Your task to perform on an android device: Open CNN.com Image 0: 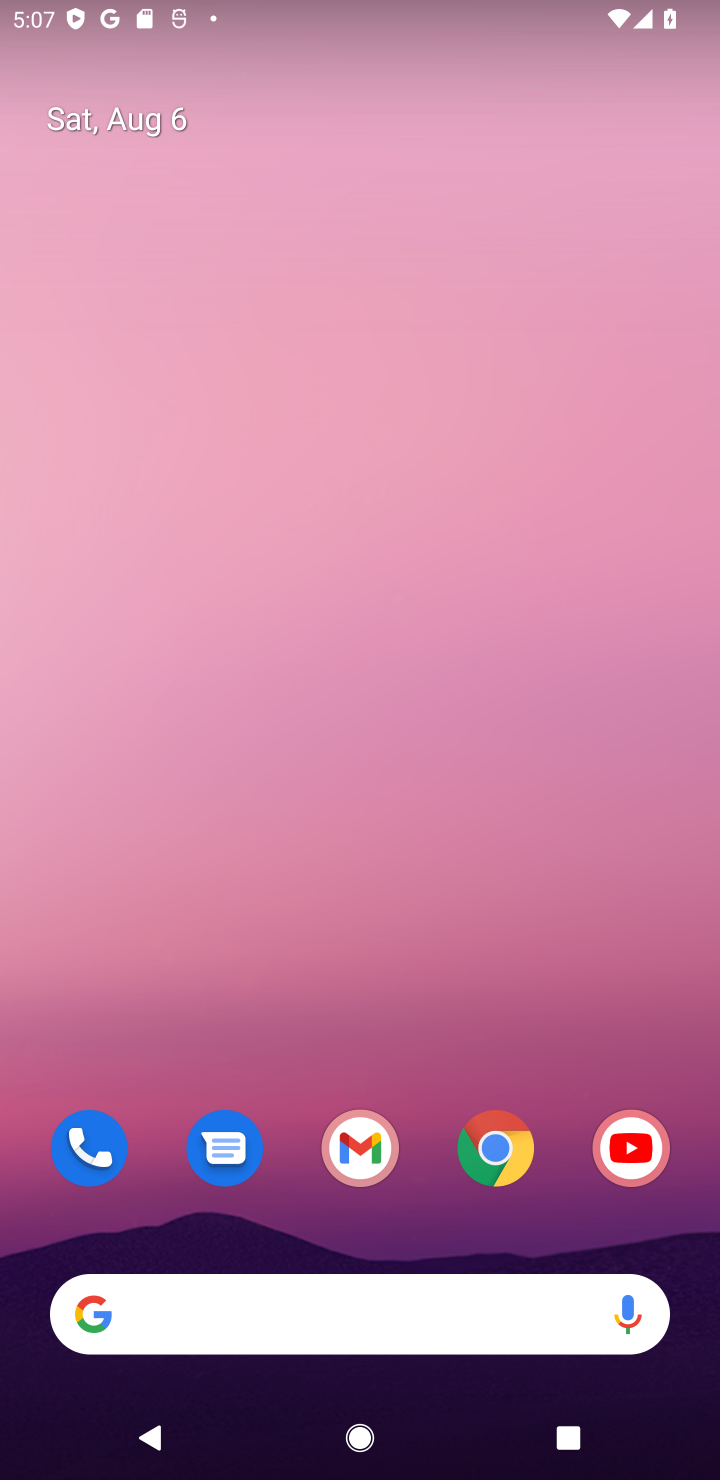
Step 0: click (518, 1145)
Your task to perform on an android device: Open CNN.com Image 1: 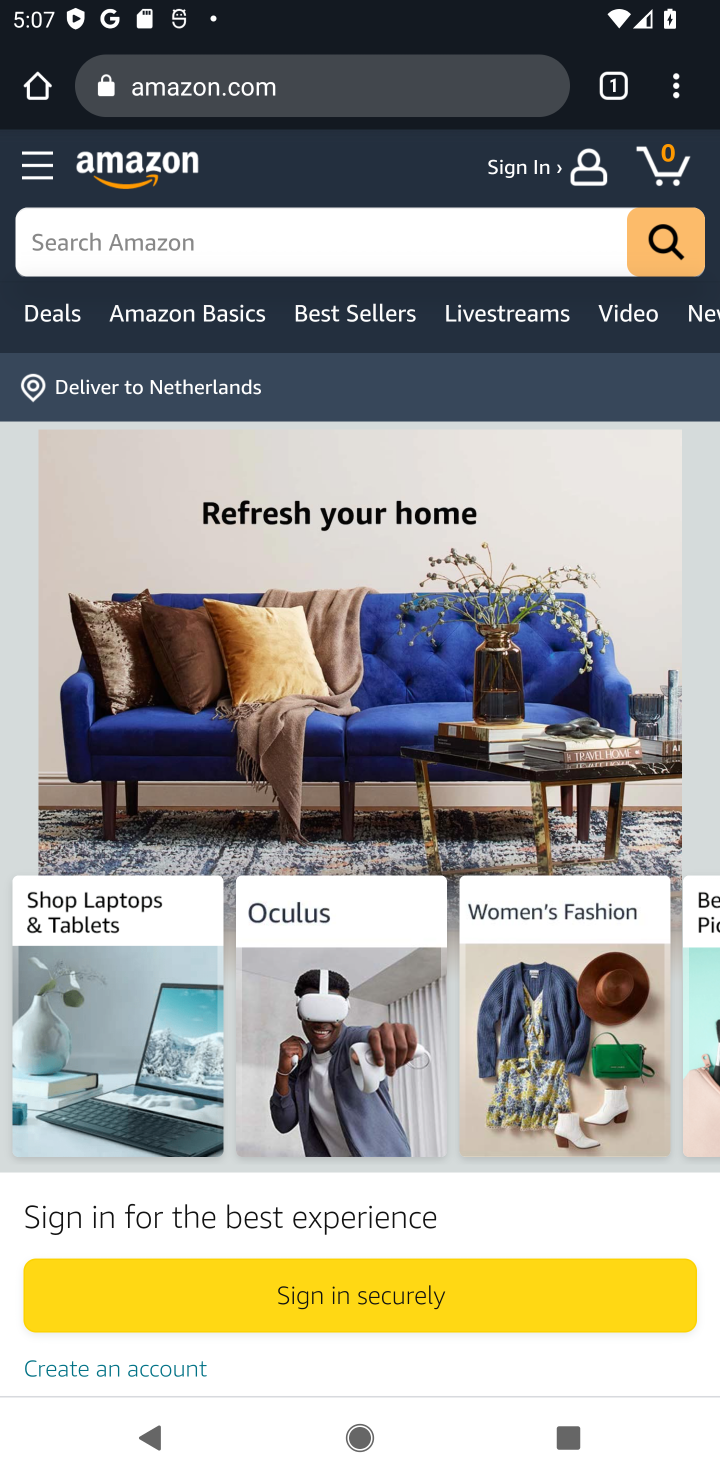
Step 1: click (611, 71)
Your task to perform on an android device: Open CNN.com Image 2: 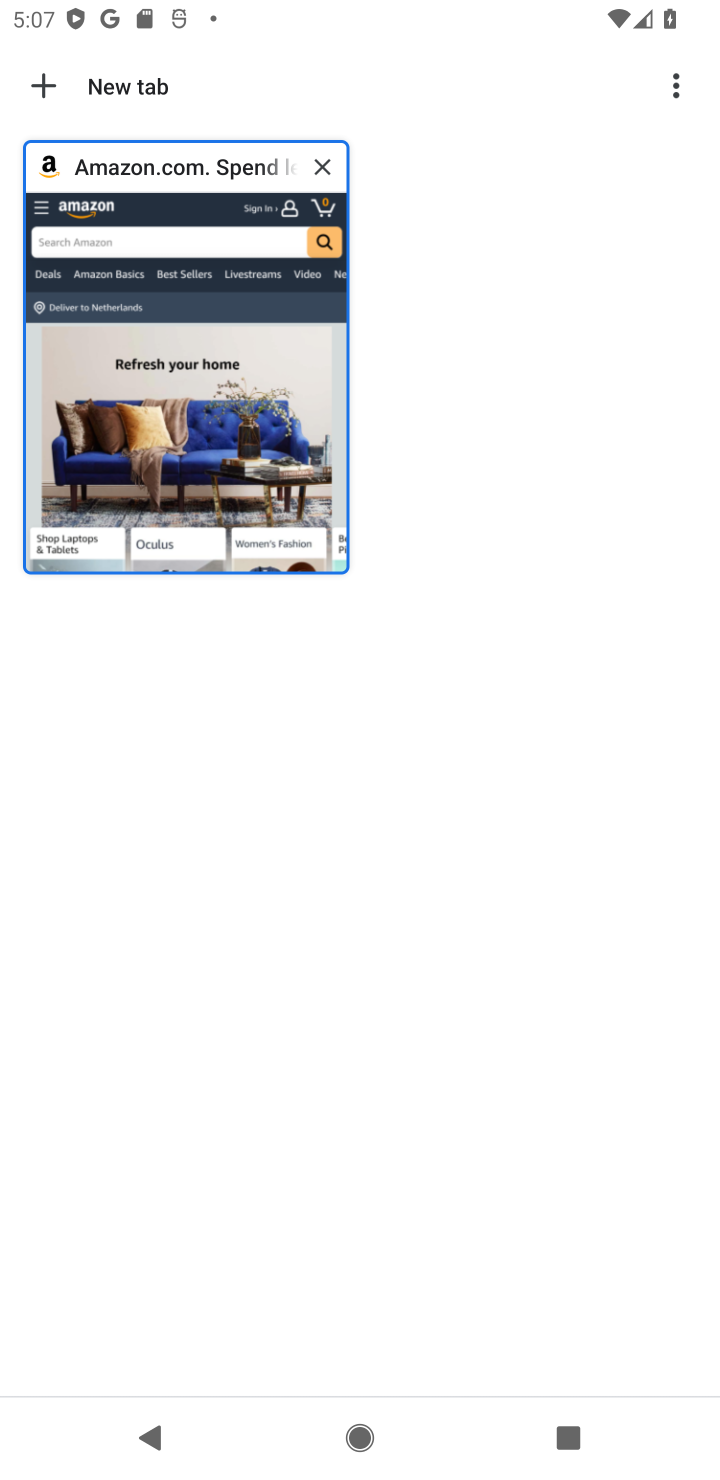
Step 2: click (40, 72)
Your task to perform on an android device: Open CNN.com Image 3: 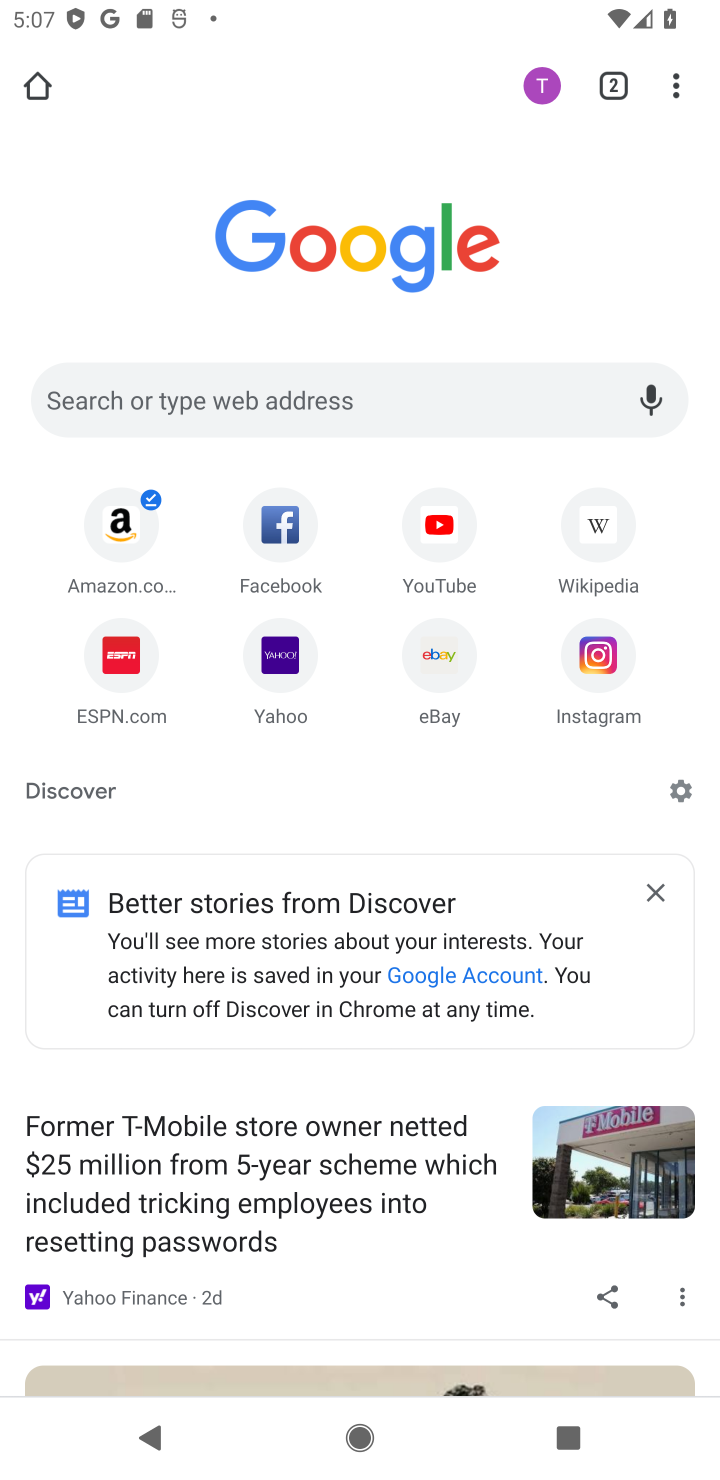
Step 3: click (203, 370)
Your task to perform on an android device: Open CNN.com Image 4: 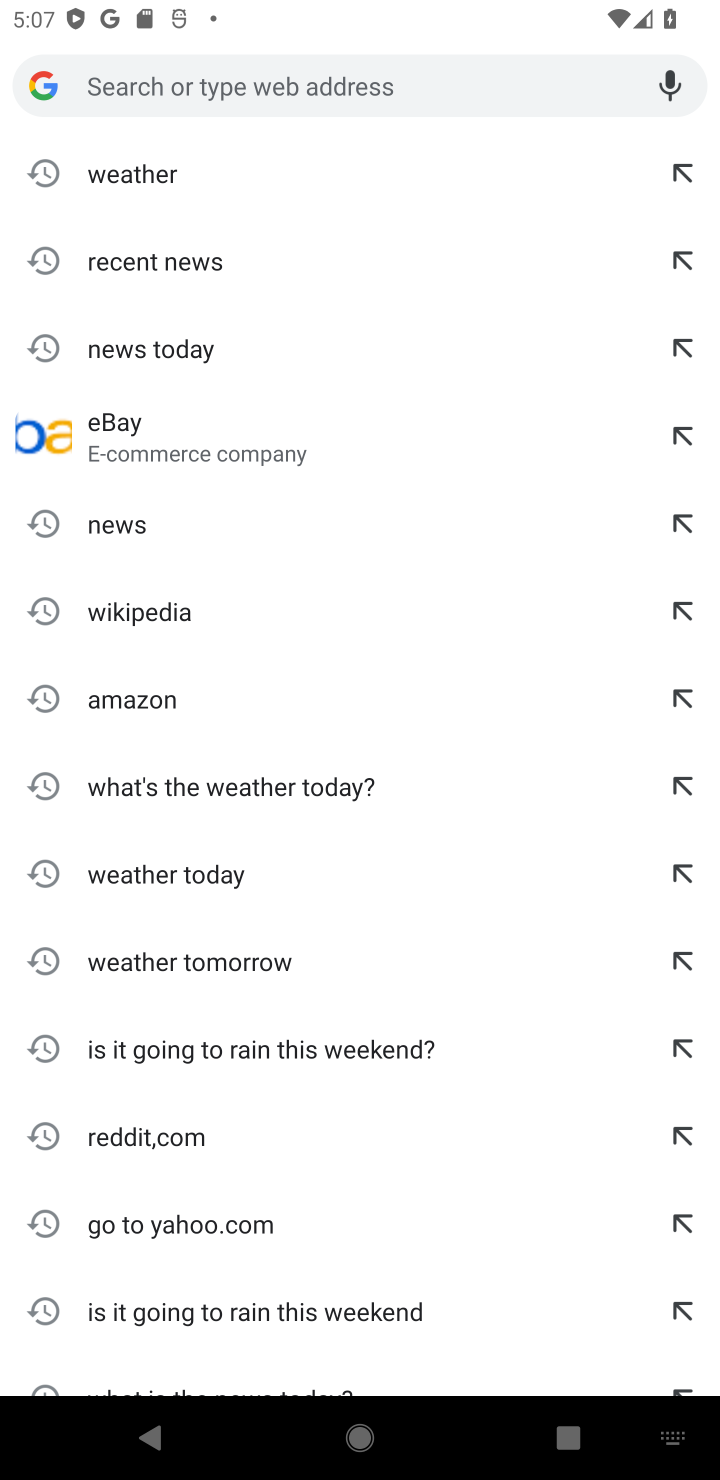
Step 4: type "CNN.com"
Your task to perform on an android device: Open CNN.com Image 5: 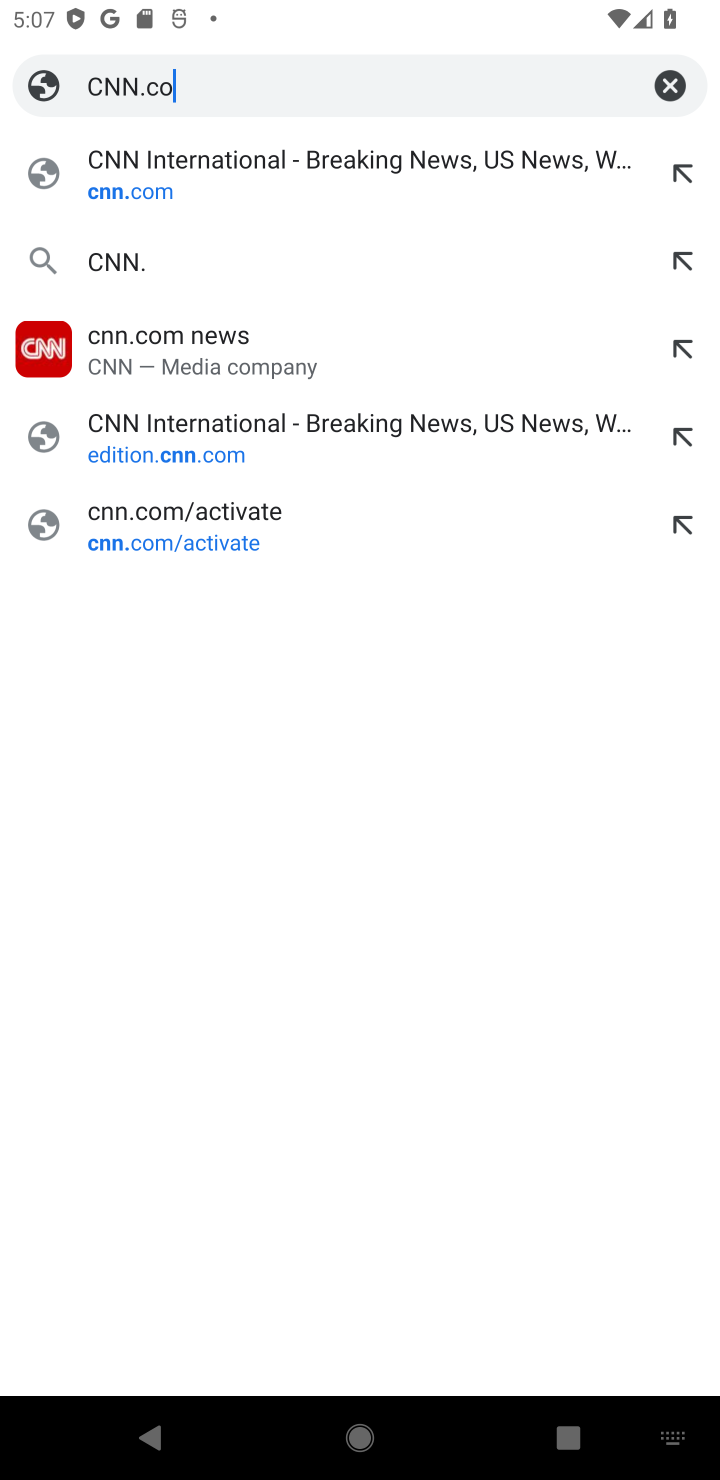
Step 5: type ""
Your task to perform on an android device: Open CNN.com Image 6: 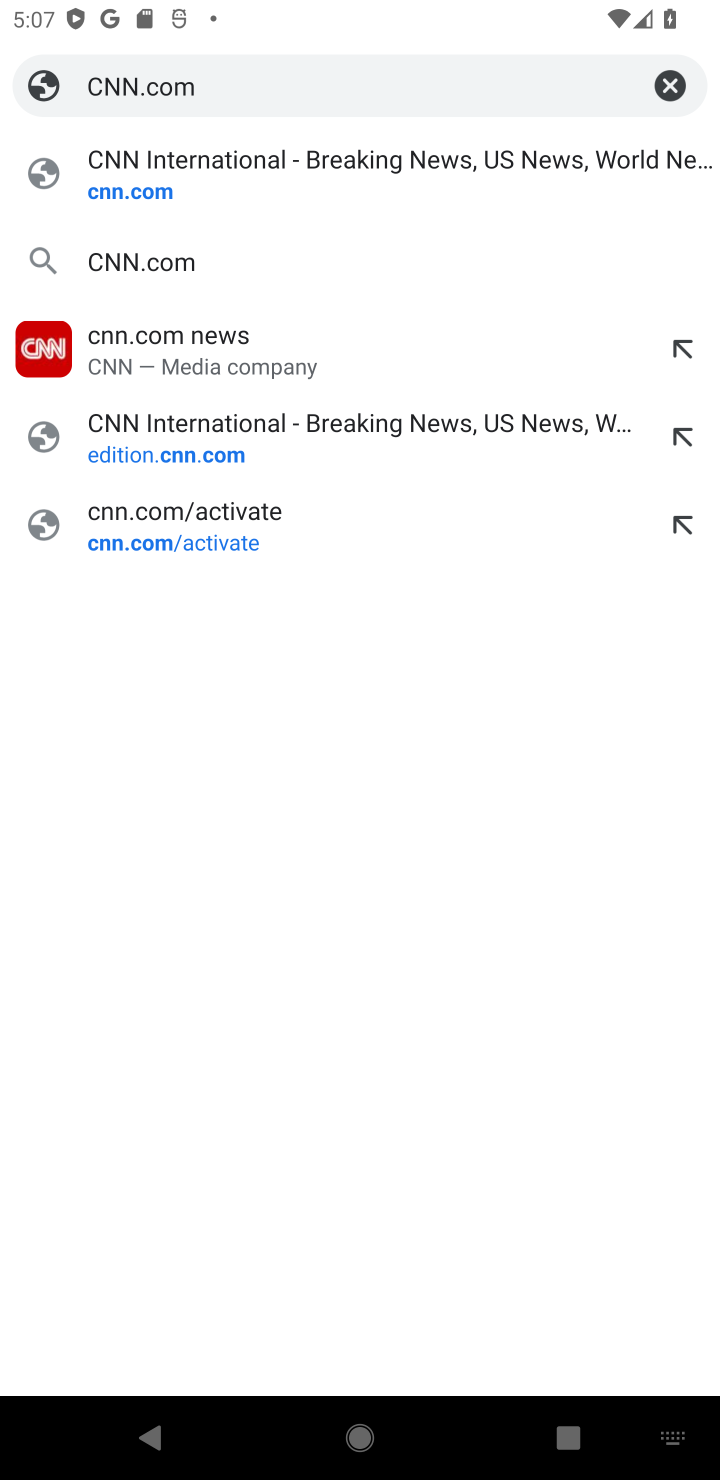
Step 6: click (142, 326)
Your task to perform on an android device: Open CNN.com Image 7: 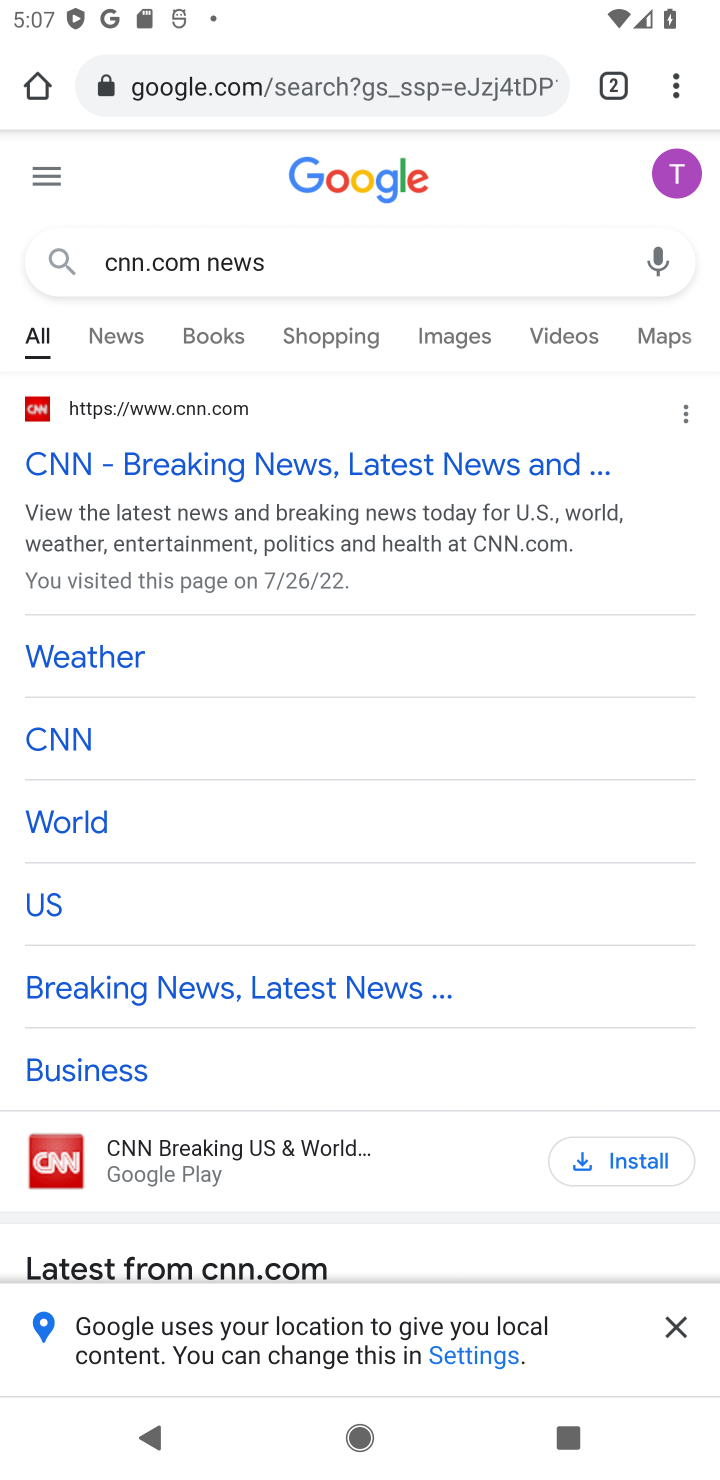
Step 7: task complete